Your task to perform on an android device: toggle notifications settings in the gmail app Image 0: 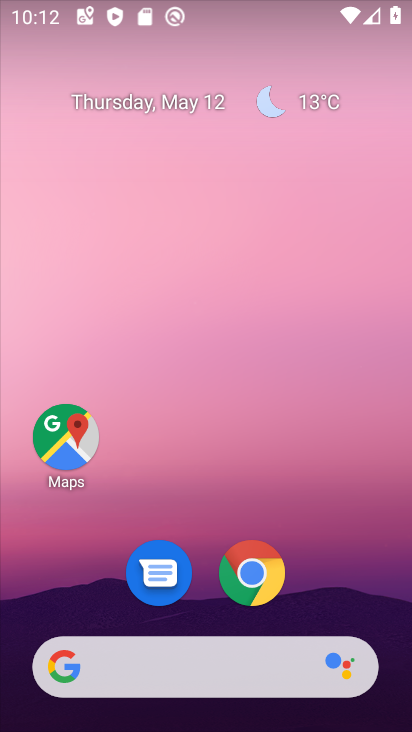
Step 0: drag from (170, 625) to (164, 3)
Your task to perform on an android device: toggle notifications settings in the gmail app Image 1: 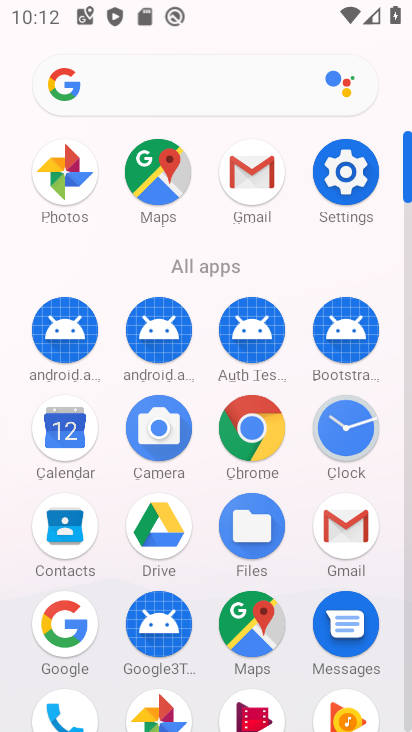
Step 1: click (331, 555)
Your task to perform on an android device: toggle notifications settings in the gmail app Image 2: 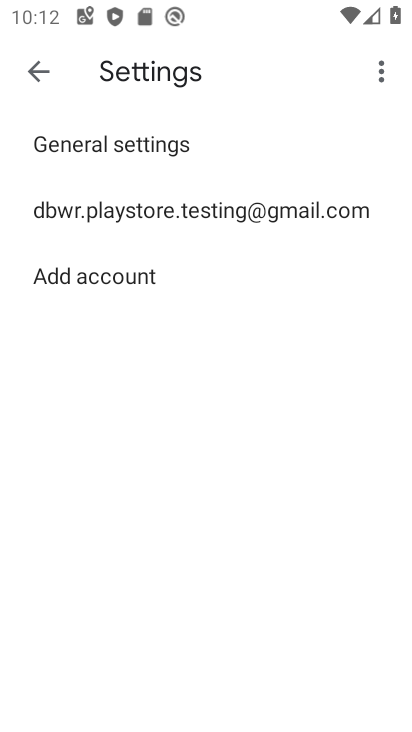
Step 2: click (86, 148)
Your task to perform on an android device: toggle notifications settings in the gmail app Image 3: 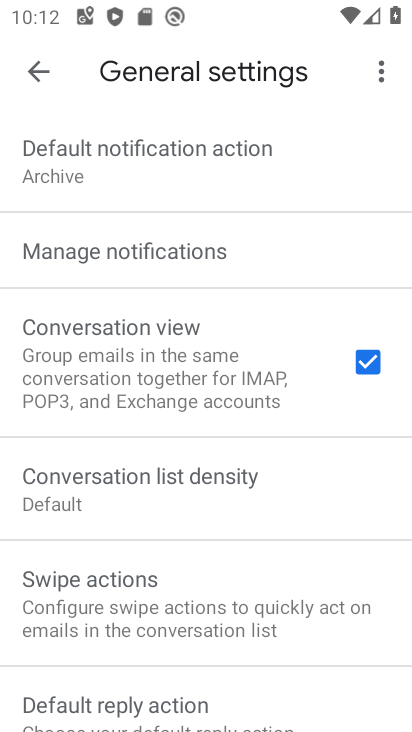
Step 3: click (149, 271)
Your task to perform on an android device: toggle notifications settings in the gmail app Image 4: 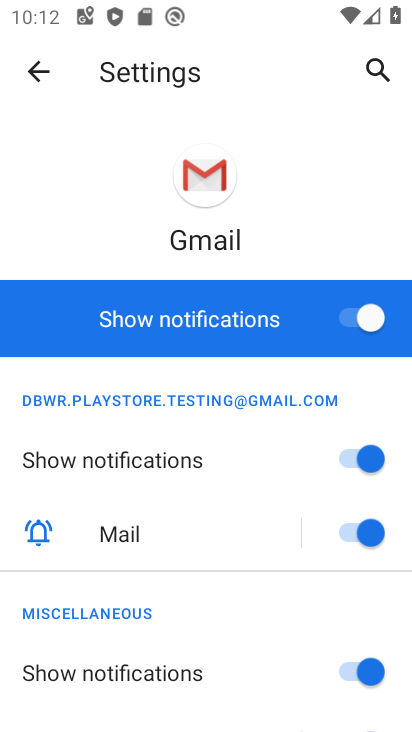
Step 4: click (348, 325)
Your task to perform on an android device: toggle notifications settings in the gmail app Image 5: 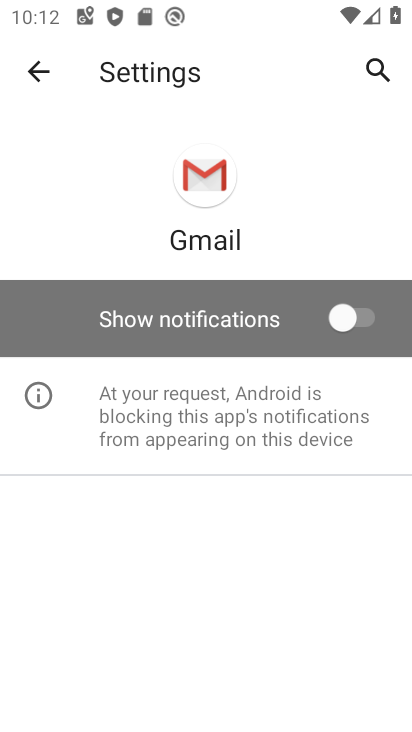
Step 5: task complete